Your task to perform on an android device: Is it going to rain today? Image 0: 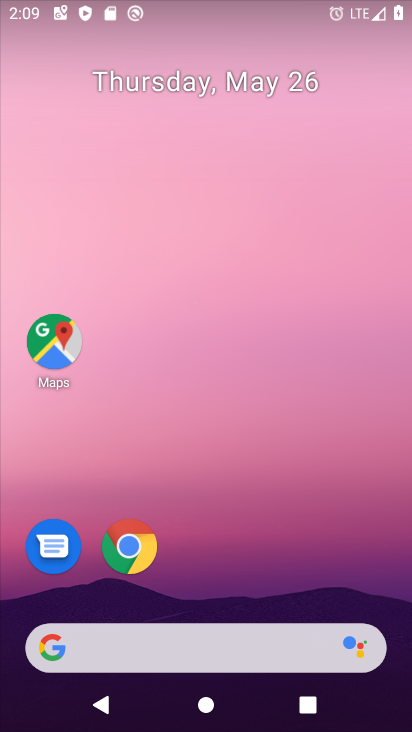
Step 0: drag from (235, 572) to (315, 67)
Your task to perform on an android device: Is it going to rain today? Image 1: 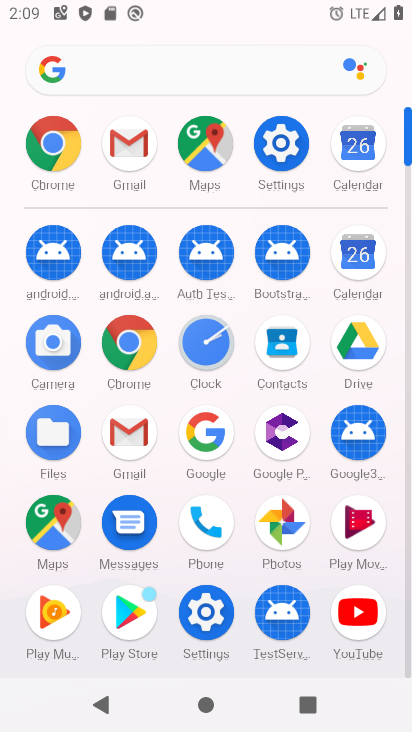
Step 1: click (204, 435)
Your task to perform on an android device: Is it going to rain today? Image 2: 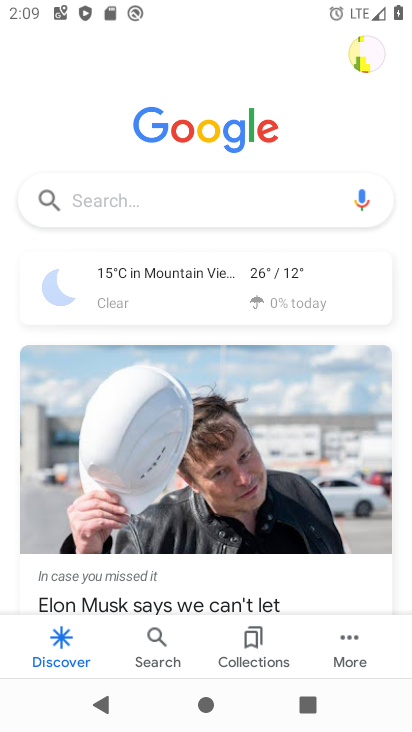
Step 2: click (182, 204)
Your task to perform on an android device: Is it going to rain today? Image 3: 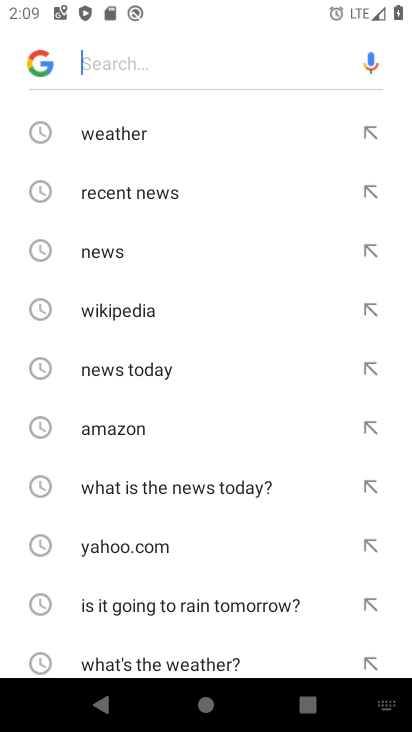
Step 3: drag from (243, 550) to (255, 267)
Your task to perform on an android device: Is it going to rain today? Image 4: 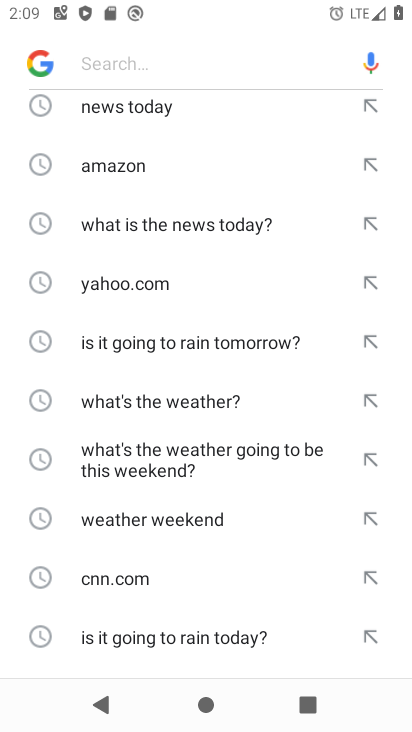
Step 4: click (197, 632)
Your task to perform on an android device: Is it going to rain today? Image 5: 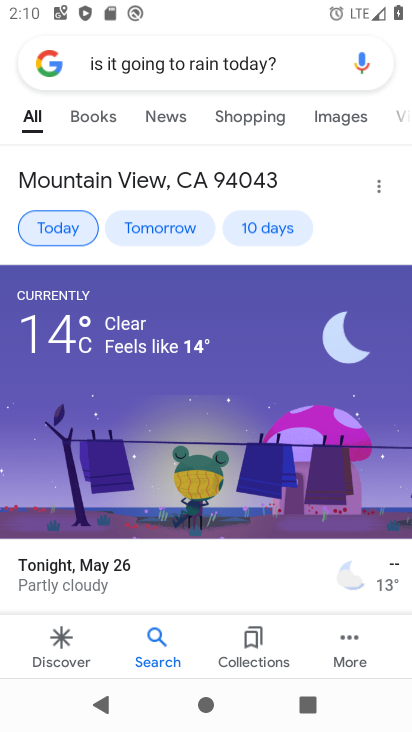
Step 5: task complete